Your task to perform on an android device: Open Google Image 0: 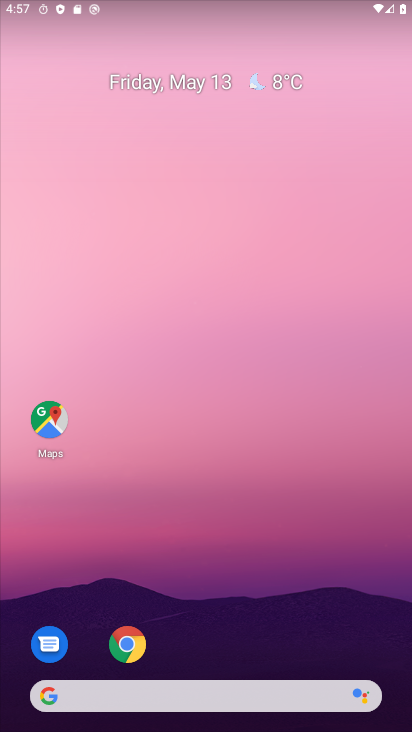
Step 0: press home button
Your task to perform on an android device: Open Google Image 1: 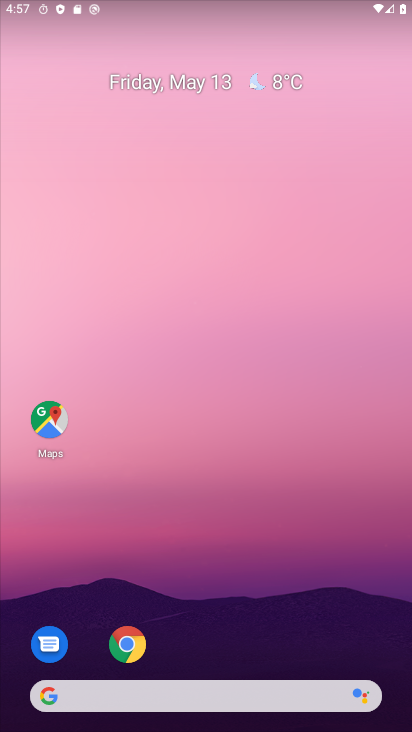
Step 1: drag from (191, 646) to (222, 215)
Your task to perform on an android device: Open Google Image 2: 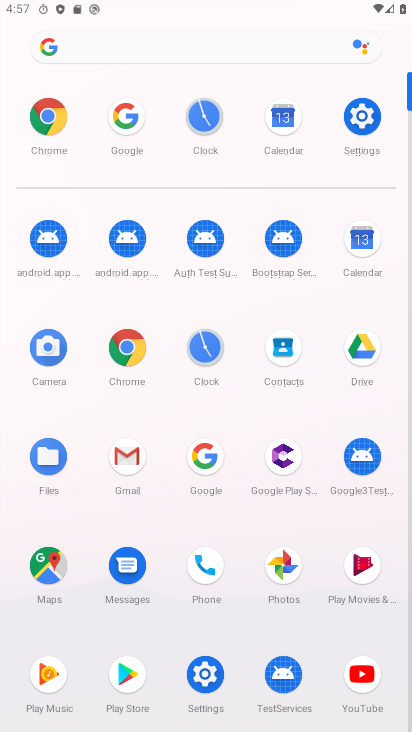
Step 2: click (205, 454)
Your task to perform on an android device: Open Google Image 3: 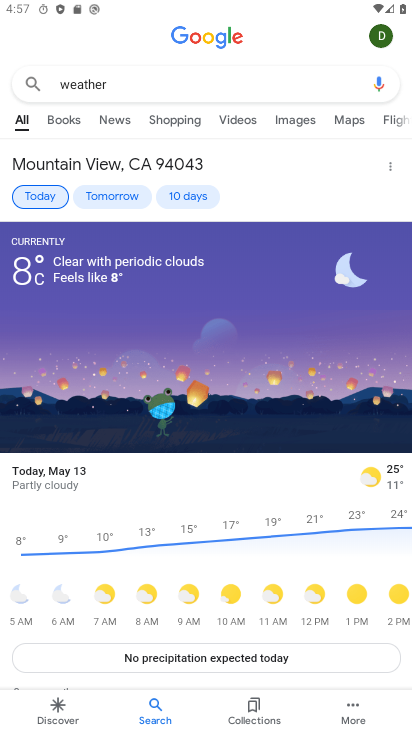
Step 3: task complete